Your task to perform on an android device: toggle javascript in the chrome app Image 0: 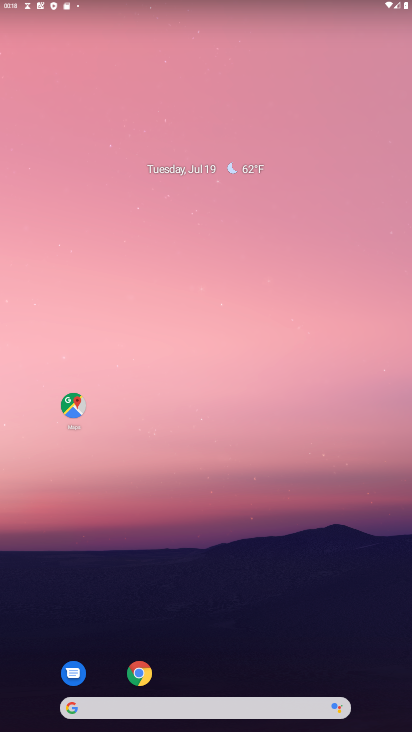
Step 0: drag from (240, 669) to (244, 350)
Your task to perform on an android device: toggle javascript in the chrome app Image 1: 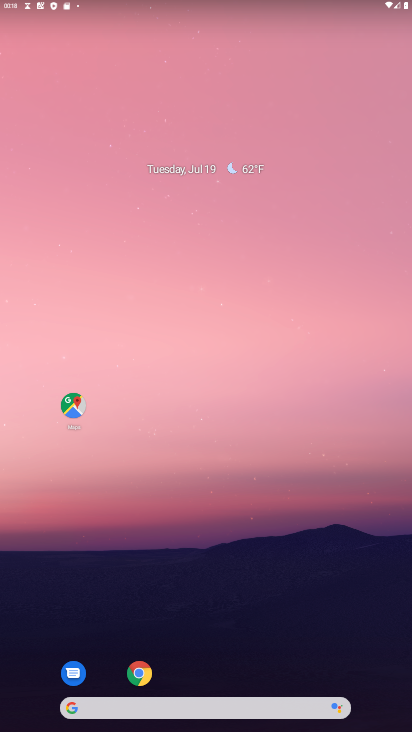
Step 1: drag from (214, 677) to (211, 301)
Your task to perform on an android device: toggle javascript in the chrome app Image 2: 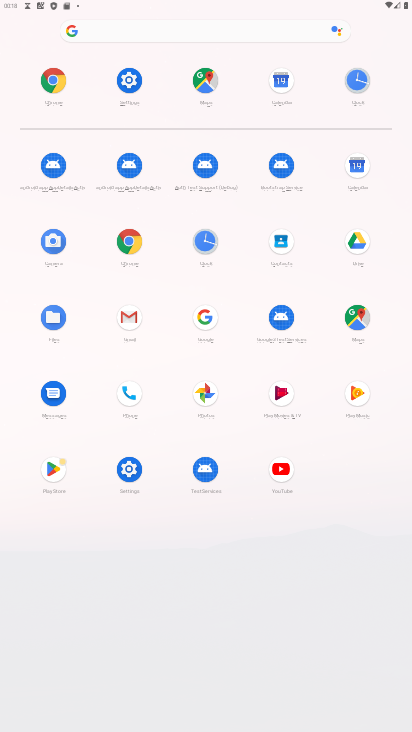
Step 2: click (127, 243)
Your task to perform on an android device: toggle javascript in the chrome app Image 3: 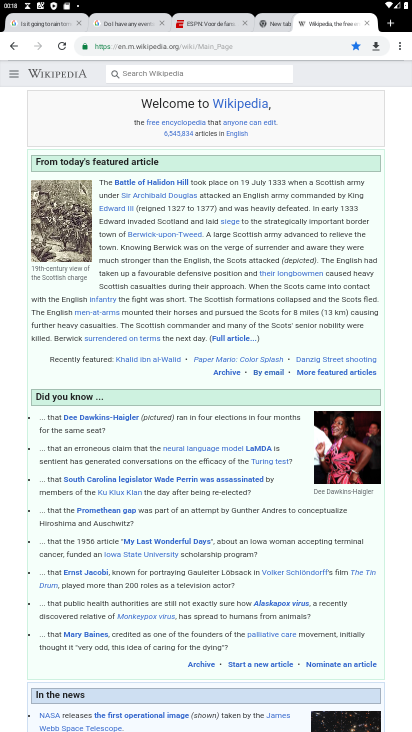
Step 3: click (401, 43)
Your task to perform on an android device: toggle javascript in the chrome app Image 4: 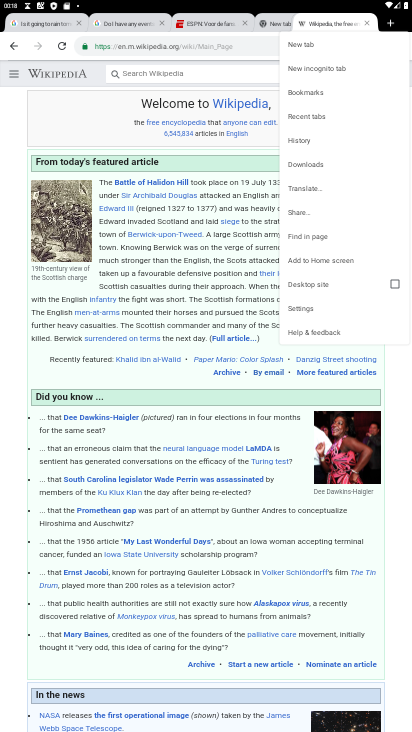
Step 4: click (303, 307)
Your task to perform on an android device: toggle javascript in the chrome app Image 5: 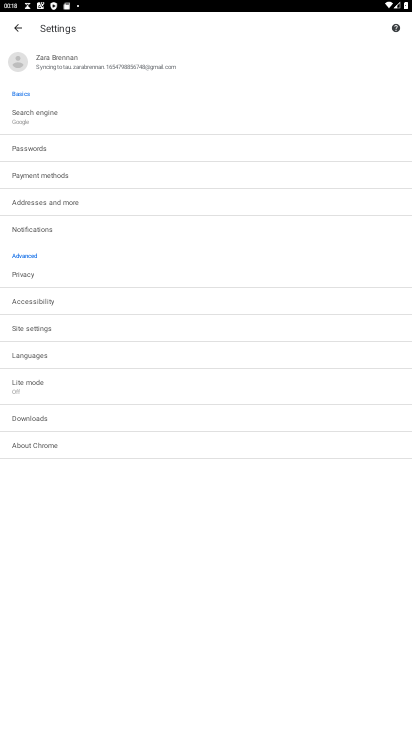
Step 5: click (66, 328)
Your task to perform on an android device: toggle javascript in the chrome app Image 6: 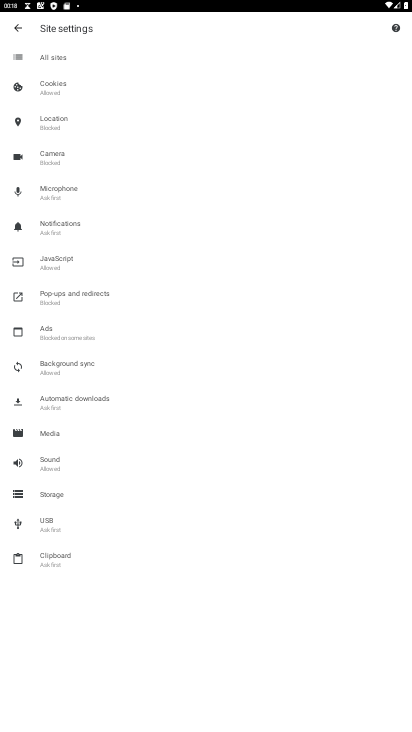
Step 6: click (85, 267)
Your task to perform on an android device: toggle javascript in the chrome app Image 7: 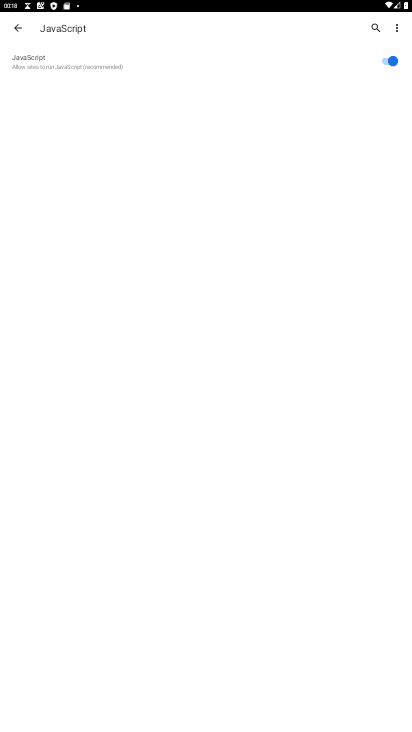
Step 7: click (390, 54)
Your task to perform on an android device: toggle javascript in the chrome app Image 8: 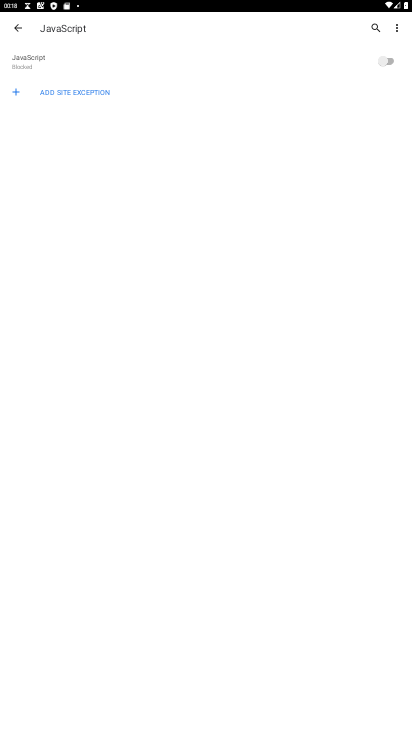
Step 8: task complete